Your task to perform on an android device: Do I have any events this weekend? Image 0: 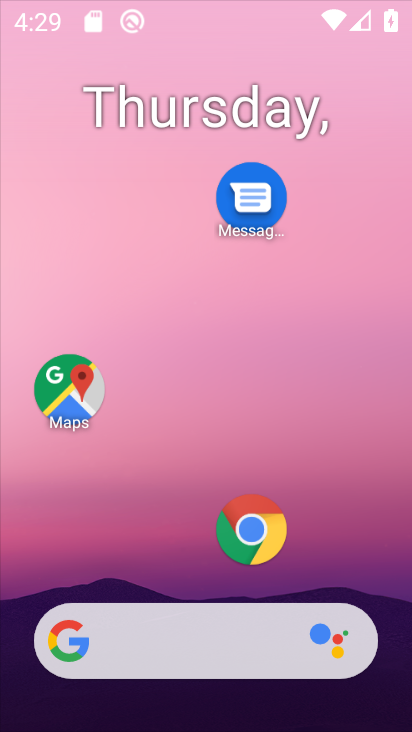
Step 0: drag from (181, 382) to (234, 70)
Your task to perform on an android device: Do I have any events this weekend? Image 1: 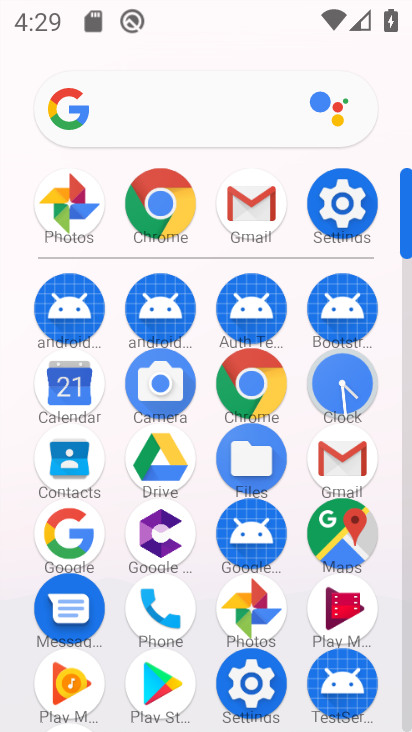
Step 1: click (63, 389)
Your task to perform on an android device: Do I have any events this weekend? Image 2: 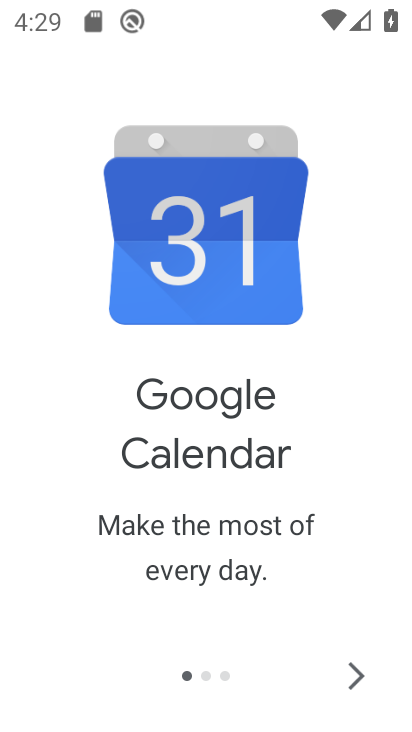
Step 2: click (348, 689)
Your task to perform on an android device: Do I have any events this weekend? Image 3: 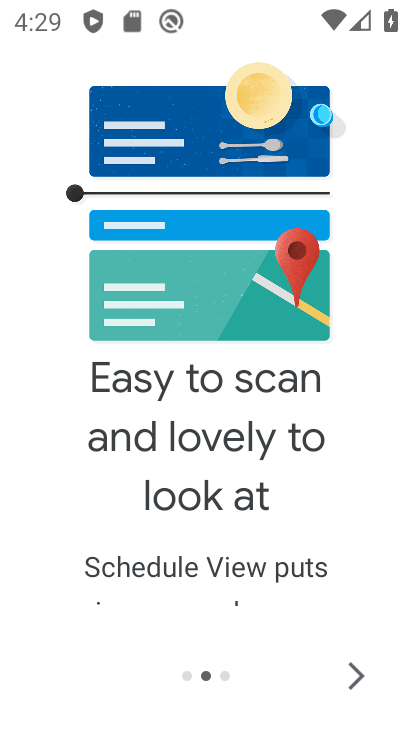
Step 3: click (348, 679)
Your task to perform on an android device: Do I have any events this weekend? Image 4: 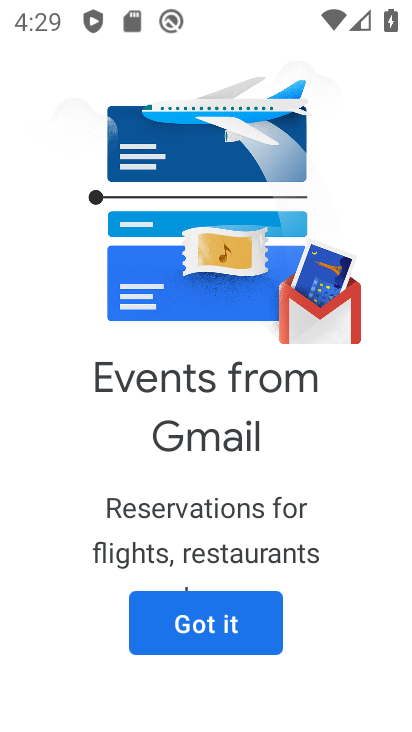
Step 4: click (205, 623)
Your task to perform on an android device: Do I have any events this weekend? Image 5: 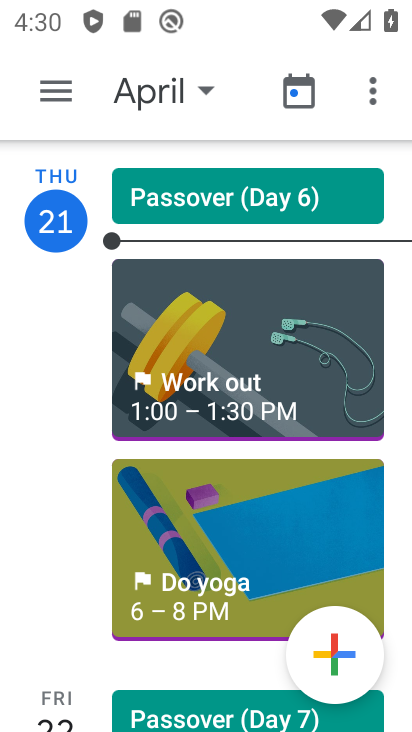
Step 5: task complete